Your task to perform on an android device: Open Google Maps and go to "Timeline" Image 0: 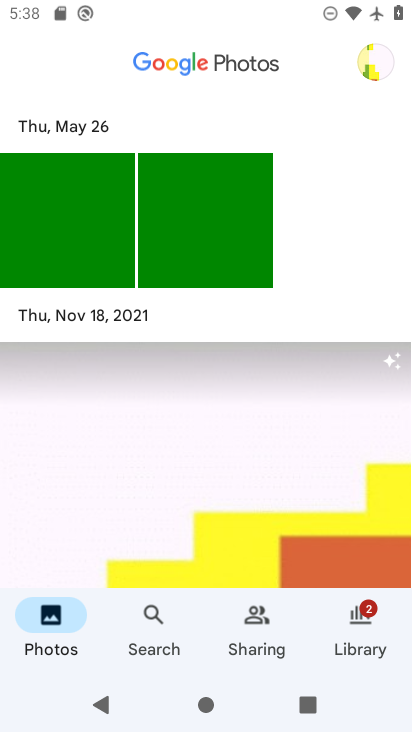
Step 0: press home button
Your task to perform on an android device: Open Google Maps and go to "Timeline" Image 1: 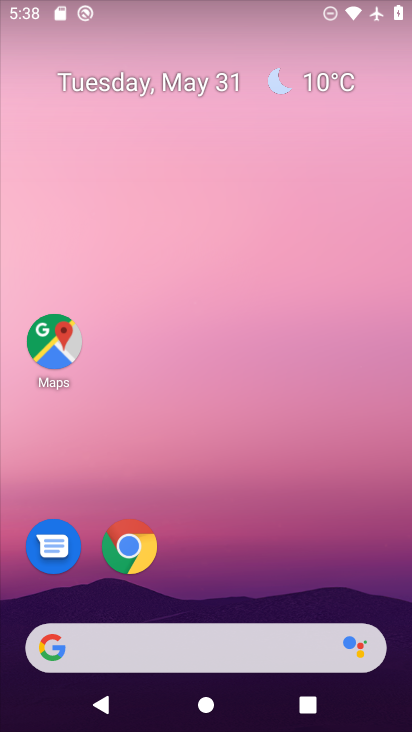
Step 1: click (73, 340)
Your task to perform on an android device: Open Google Maps and go to "Timeline" Image 2: 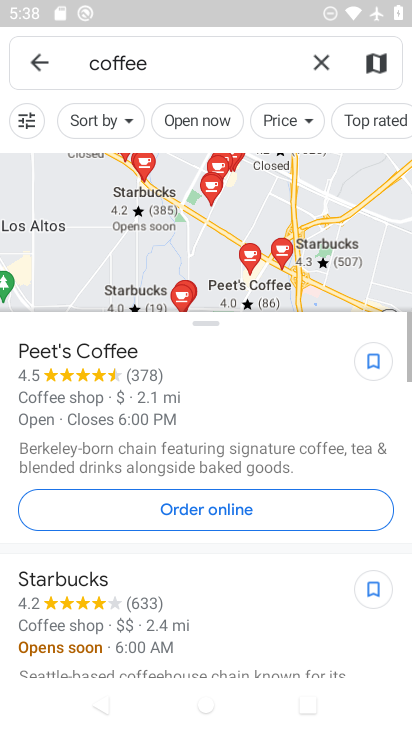
Step 2: click (47, 62)
Your task to perform on an android device: Open Google Maps and go to "Timeline" Image 3: 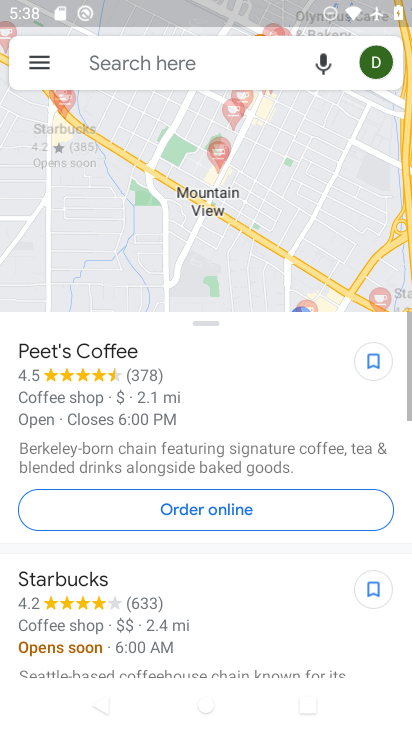
Step 3: click (44, 59)
Your task to perform on an android device: Open Google Maps and go to "Timeline" Image 4: 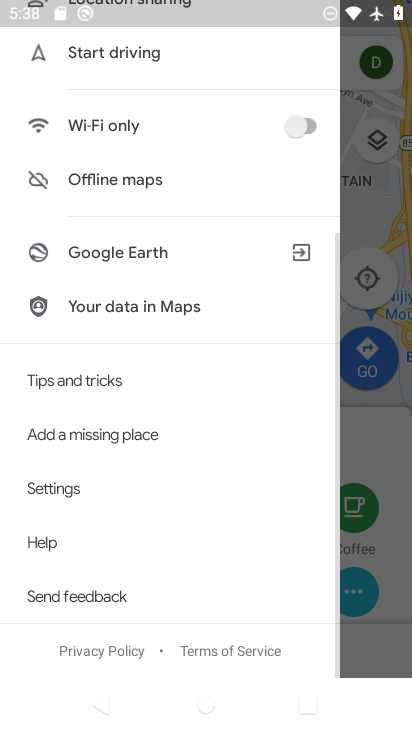
Step 4: drag from (150, 155) to (170, 711)
Your task to perform on an android device: Open Google Maps and go to "Timeline" Image 5: 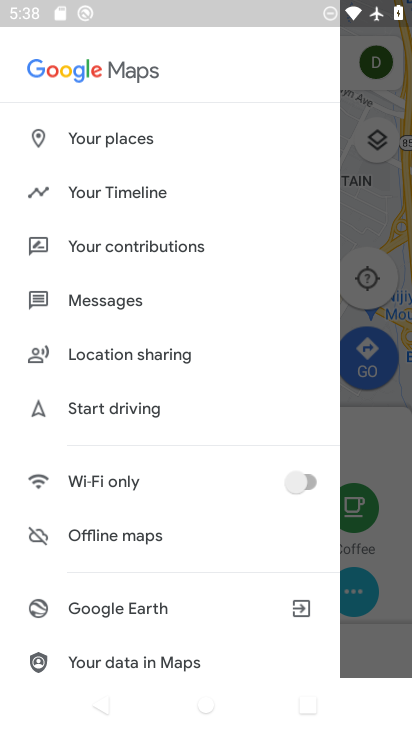
Step 5: click (115, 183)
Your task to perform on an android device: Open Google Maps and go to "Timeline" Image 6: 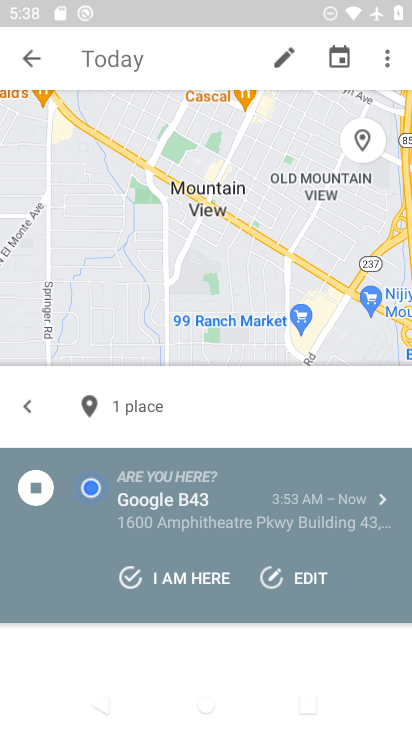
Step 6: task complete